Your task to perform on an android device: Open the calendar and show me this week's events? Image 0: 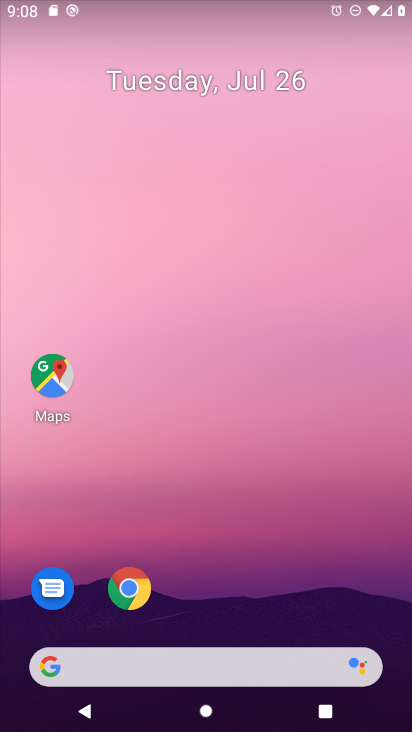
Step 0: drag from (226, 628) to (308, 104)
Your task to perform on an android device: Open the calendar and show me this week's events? Image 1: 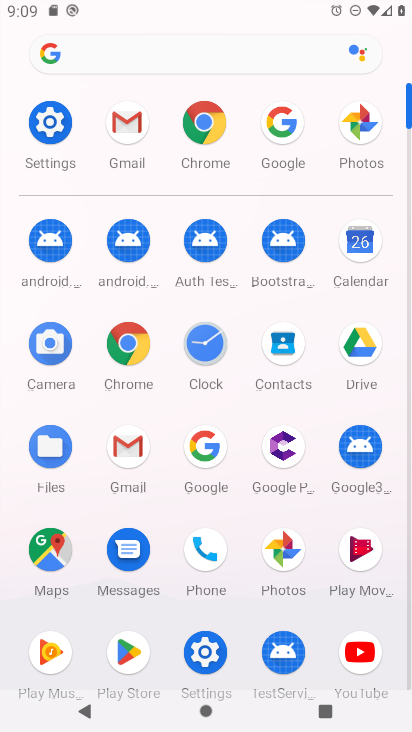
Step 1: click (371, 265)
Your task to perform on an android device: Open the calendar and show me this week's events? Image 2: 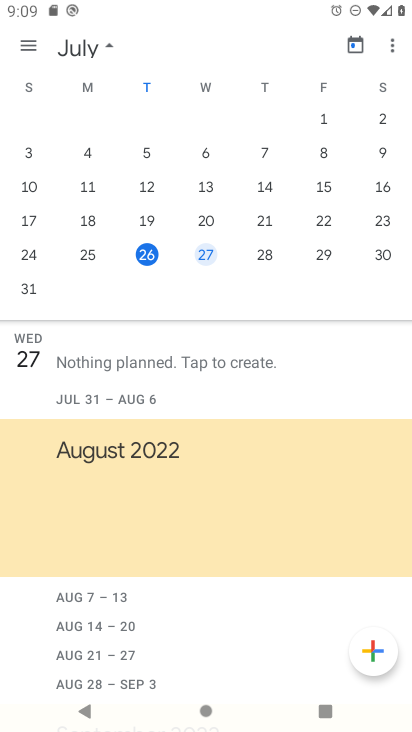
Step 2: click (151, 257)
Your task to perform on an android device: Open the calendar and show me this week's events? Image 3: 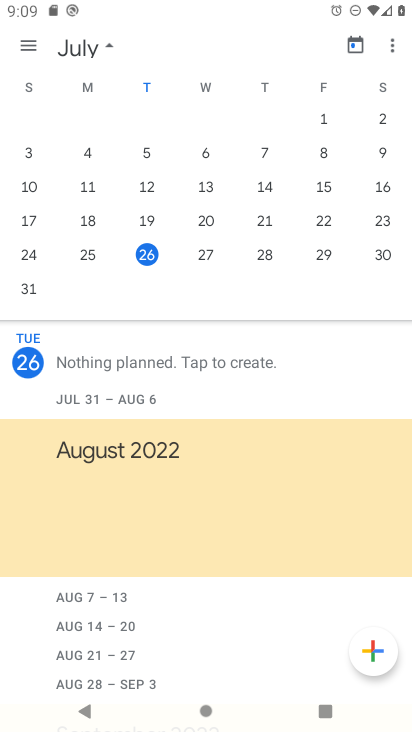
Step 3: task complete